Your task to perform on an android device: Open Google Maps Image 0: 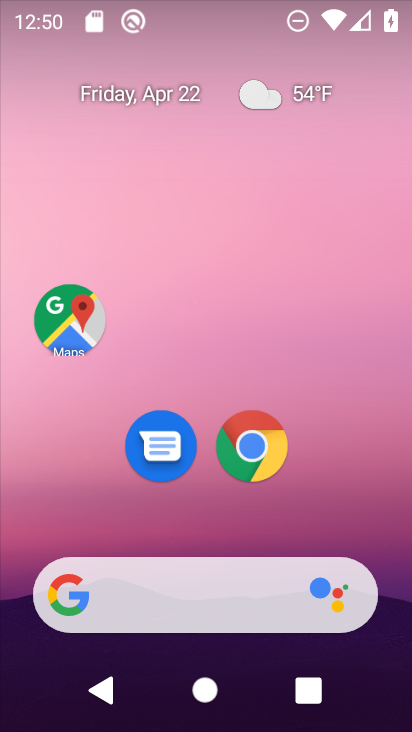
Step 0: click (80, 307)
Your task to perform on an android device: Open Google Maps Image 1: 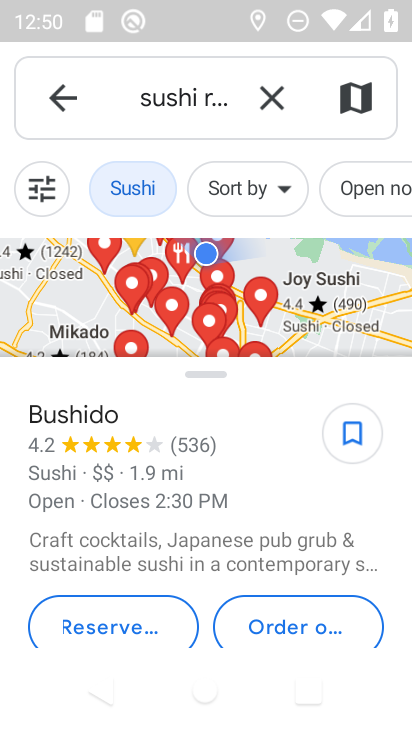
Step 1: task complete